Your task to perform on an android device: Is it going to rain today? Image 0: 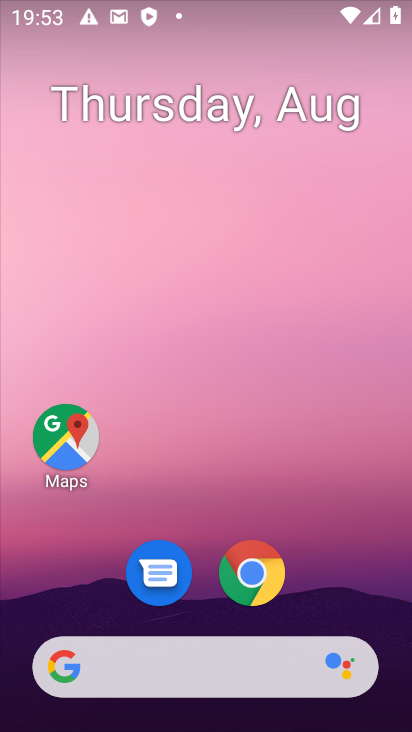
Step 0: click (230, 84)
Your task to perform on an android device: Is it going to rain today? Image 1: 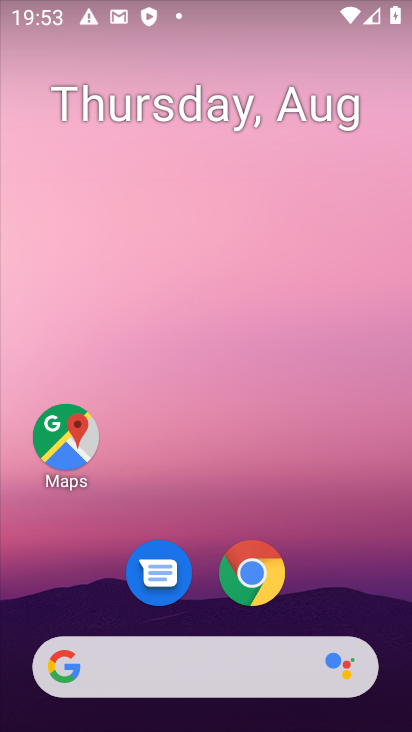
Step 1: click (255, 574)
Your task to perform on an android device: Is it going to rain today? Image 2: 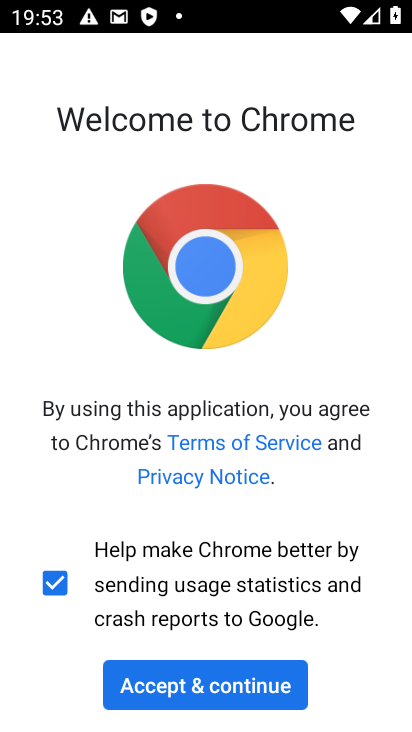
Step 2: click (207, 676)
Your task to perform on an android device: Is it going to rain today? Image 3: 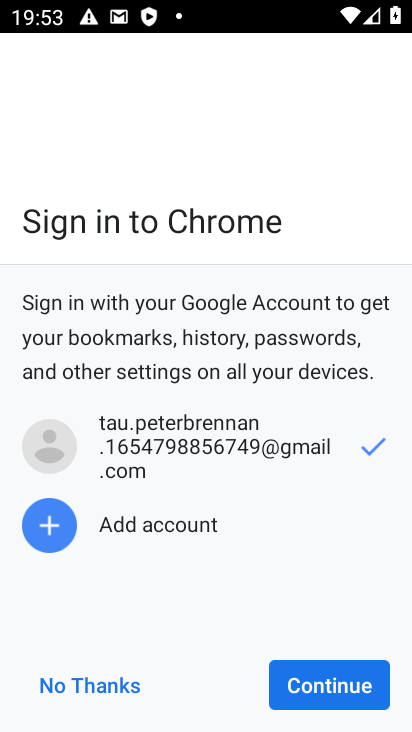
Step 3: click (346, 676)
Your task to perform on an android device: Is it going to rain today? Image 4: 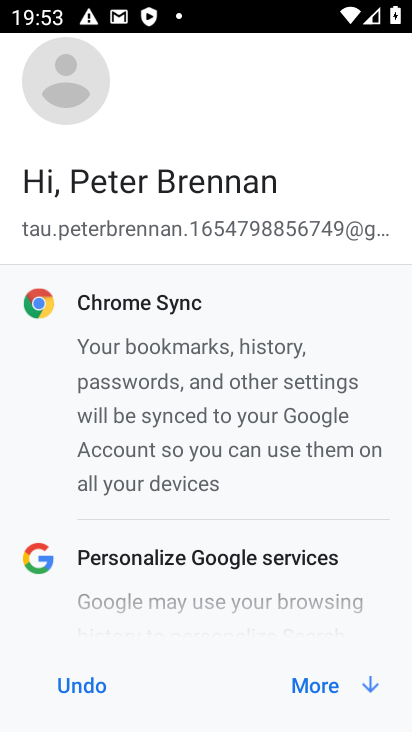
Step 4: click (346, 676)
Your task to perform on an android device: Is it going to rain today? Image 5: 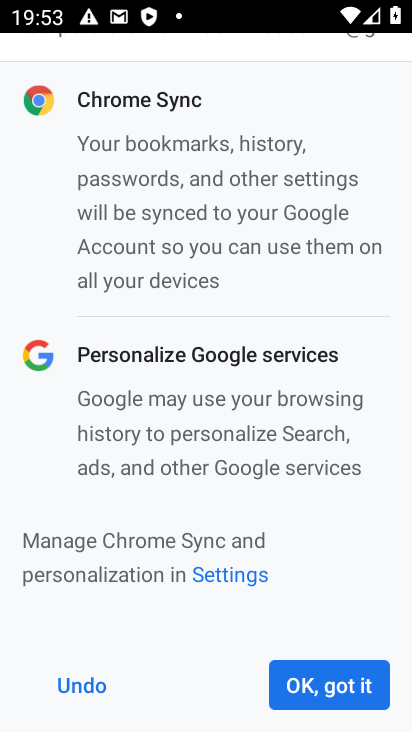
Step 5: click (315, 682)
Your task to perform on an android device: Is it going to rain today? Image 6: 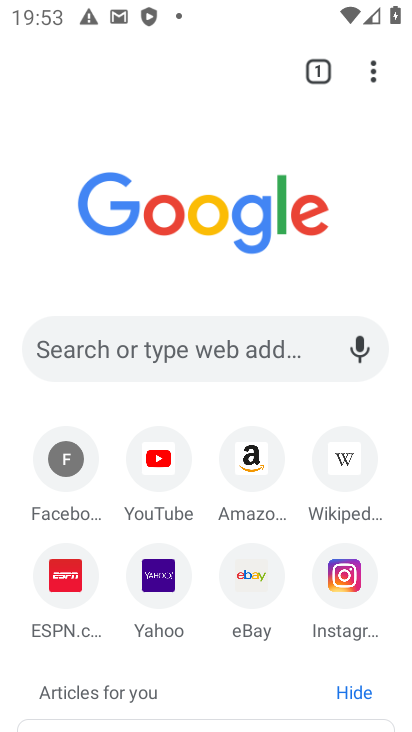
Step 6: click (219, 339)
Your task to perform on an android device: Is it going to rain today? Image 7: 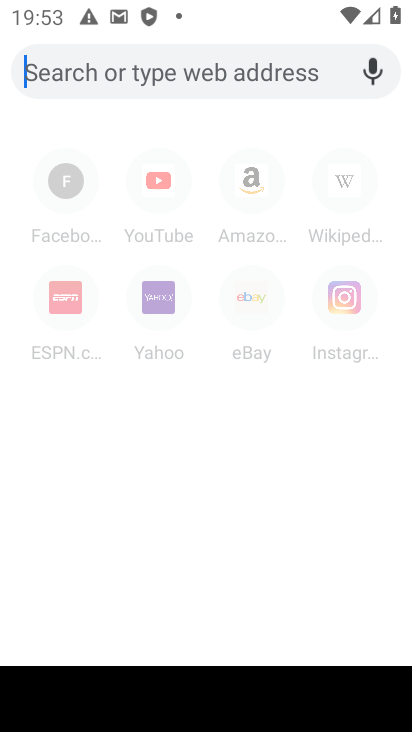
Step 7: type "weather today"
Your task to perform on an android device: Is it going to rain today? Image 8: 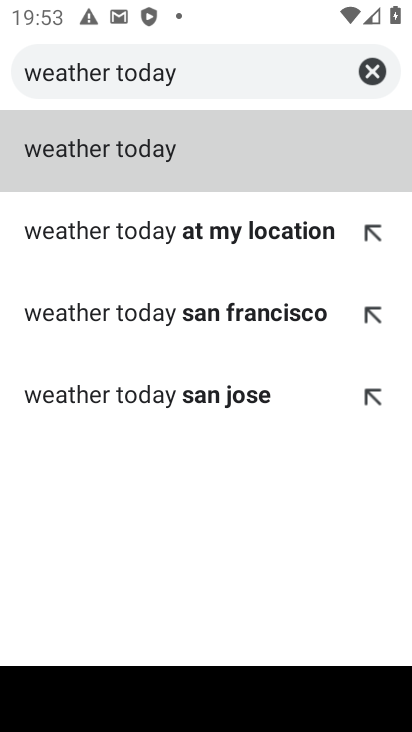
Step 8: click (119, 149)
Your task to perform on an android device: Is it going to rain today? Image 9: 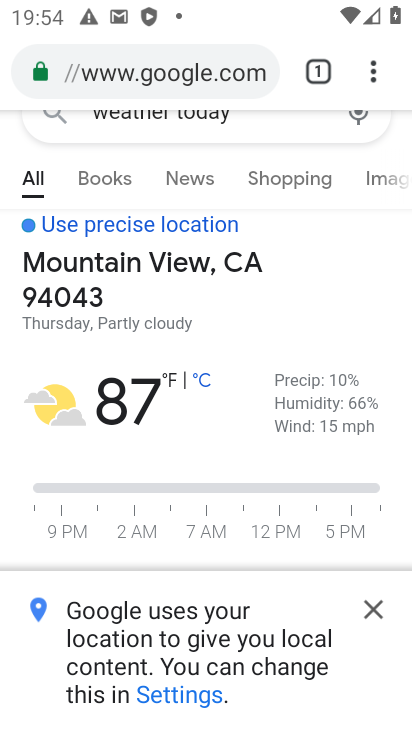
Step 9: click (364, 603)
Your task to perform on an android device: Is it going to rain today? Image 10: 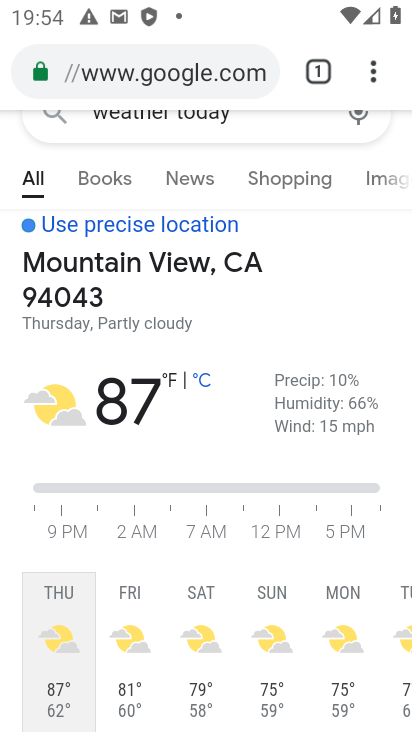
Step 10: task complete